Your task to perform on an android device: Open the stopwatch Image 0: 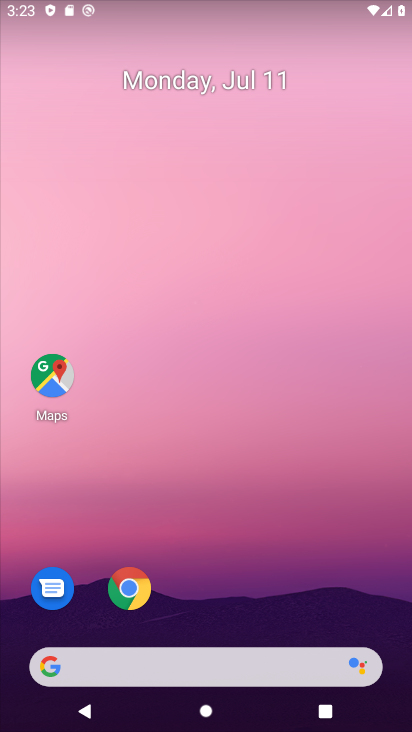
Step 0: drag from (341, 599) to (361, 215)
Your task to perform on an android device: Open the stopwatch Image 1: 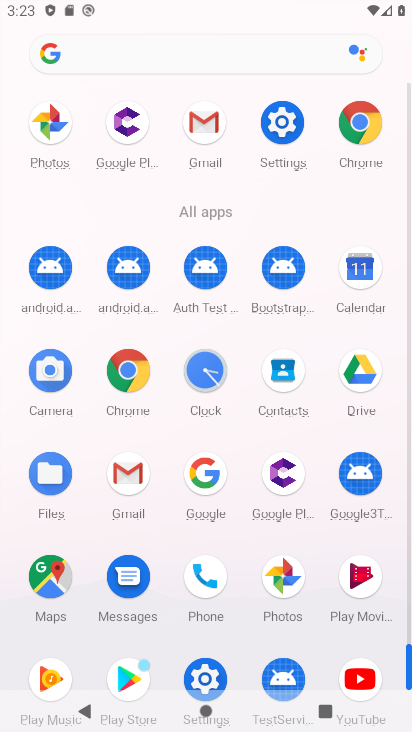
Step 1: click (212, 372)
Your task to perform on an android device: Open the stopwatch Image 2: 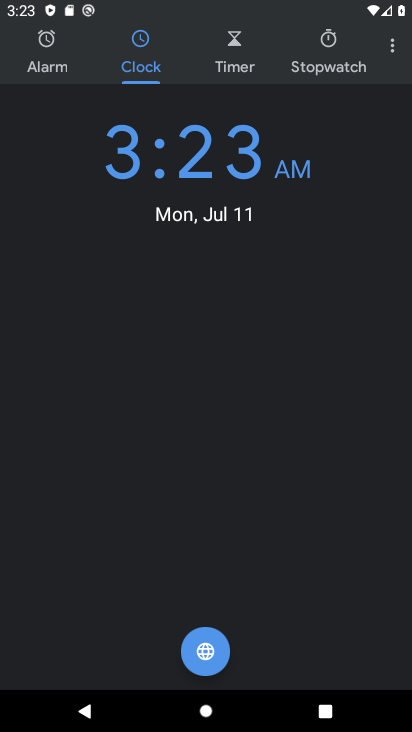
Step 2: click (334, 41)
Your task to perform on an android device: Open the stopwatch Image 3: 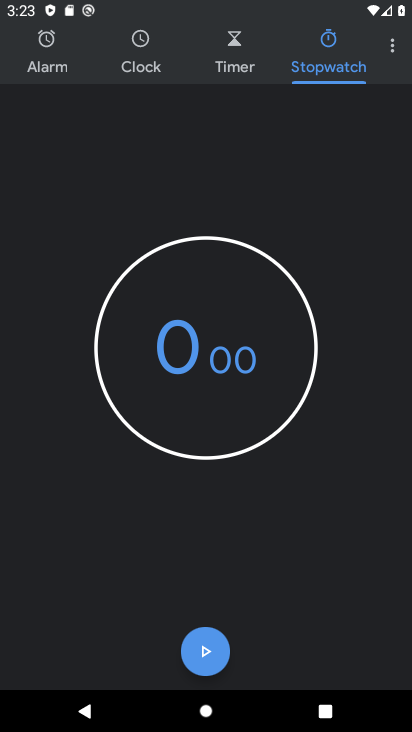
Step 3: task complete